Your task to perform on an android device: Go to location settings Image 0: 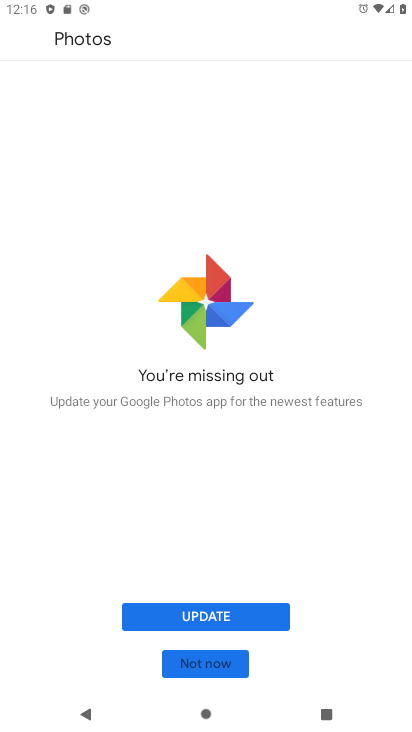
Step 0: press back button
Your task to perform on an android device: Go to location settings Image 1: 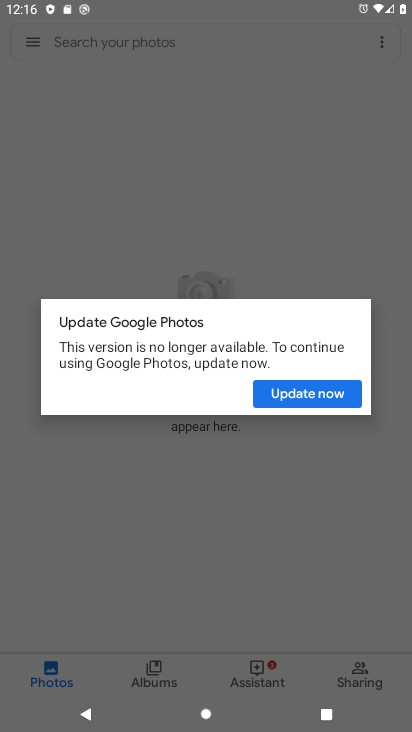
Step 1: press home button
Your task to perform on an android device: Go to location settings Image 2: 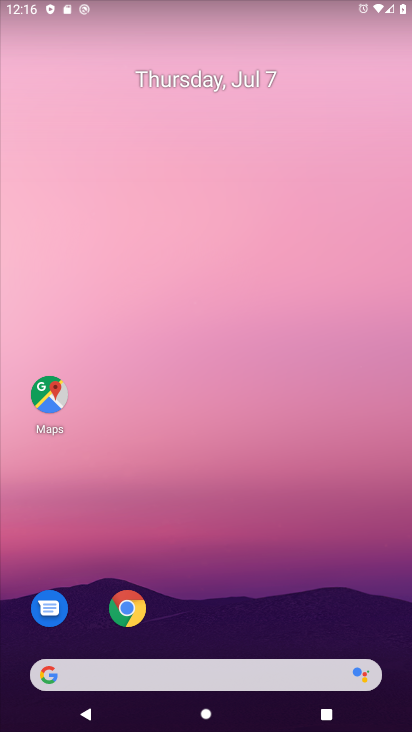
Step 2: drag from (228, 509) to (303, 0)
Your task to perform on an android device: Go to location settings Image 3: 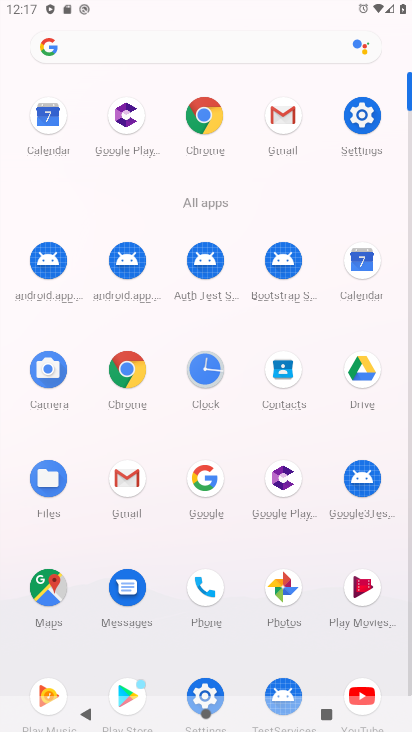
Step 3: click (367, 124)
Your task to perform on an android device: Go to location settings Image 4: 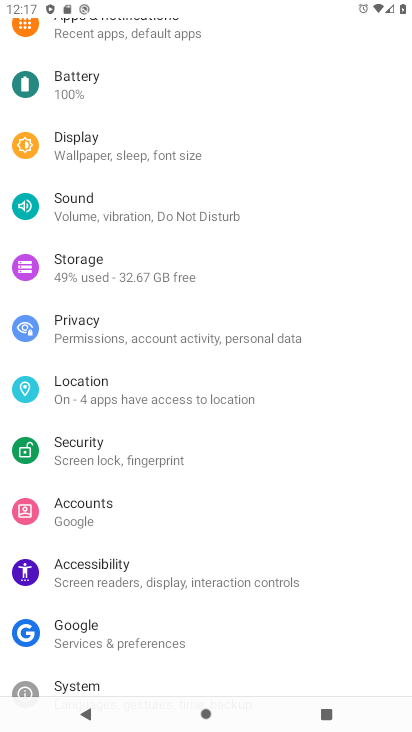
Step 4: click (75, 393)
Your task to perform on an android device: Go to location settings Image 5: 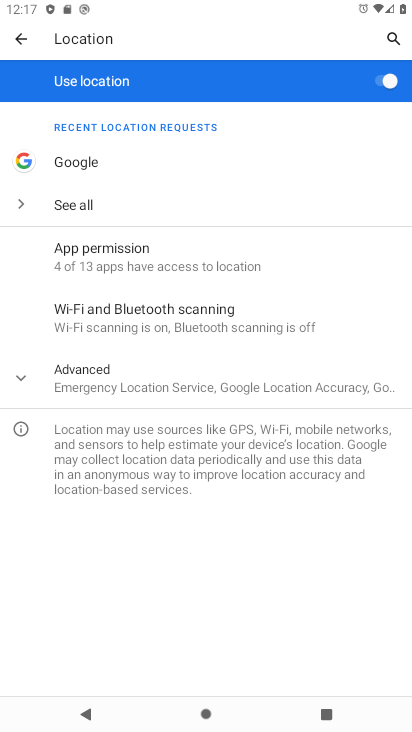
Step 5: task complete